Your task to perform on an android device: Show me productivity apps on the Play Store Image 0: 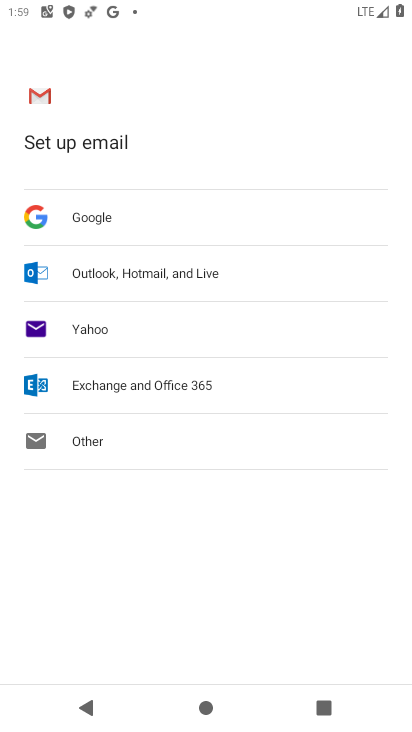
Step 0: press home button
Your task to perform on an android device: Show me productivity apps on the Play Store Image 1: 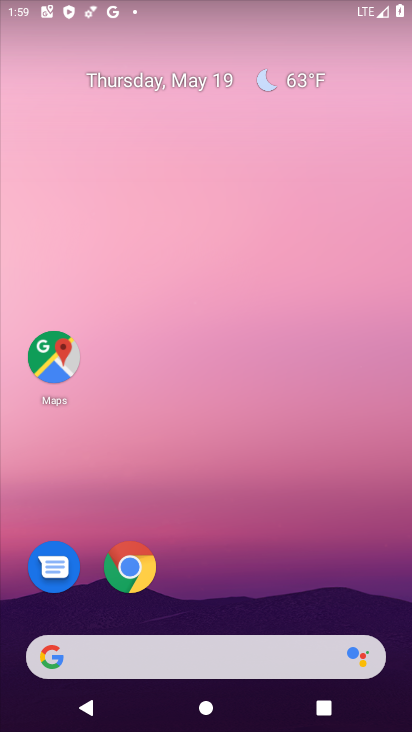
Step 1: drag from (322, 525) to (302, 18)
Your task to perform on an android device: Show me productivity apps on the Play Store Image 2: 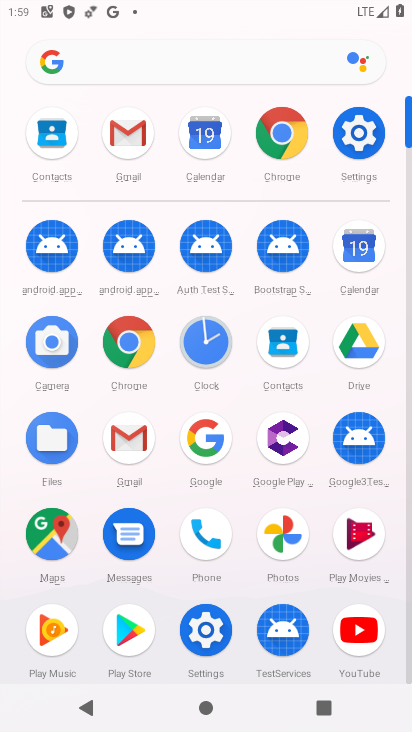
Step 2: click (133, 622)
Your task to perform on an android device: Show me productivity apps on the Play Store Image 3: 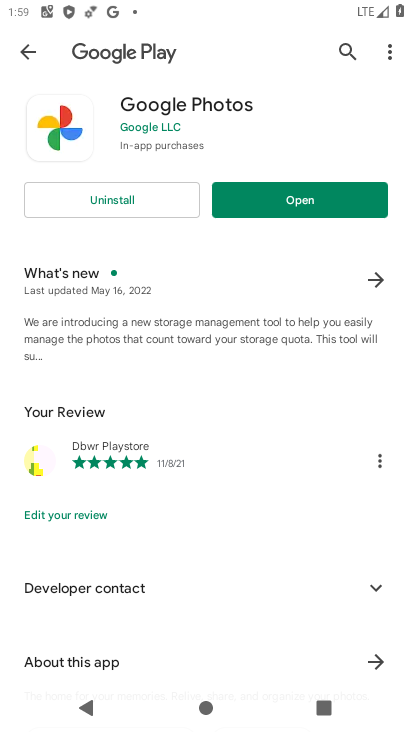
Step 3: click (271, 201)
Your task to perform on an android device: Show me productivity apps on the Play Store Image 4: 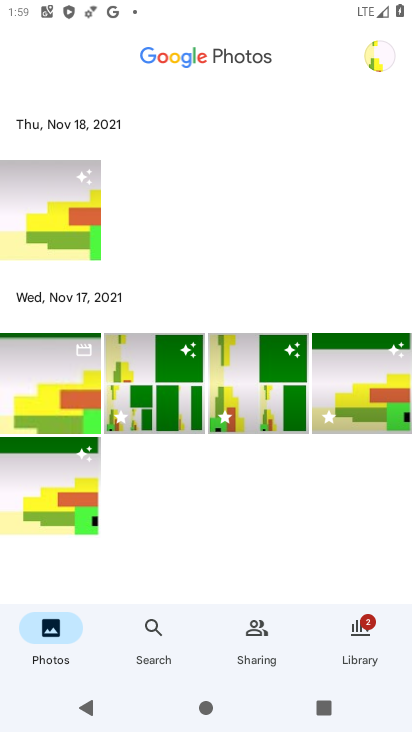
Step 4: press home button
Your task to perform on an android device: Show me productivity apps on the Play Store Image 5: 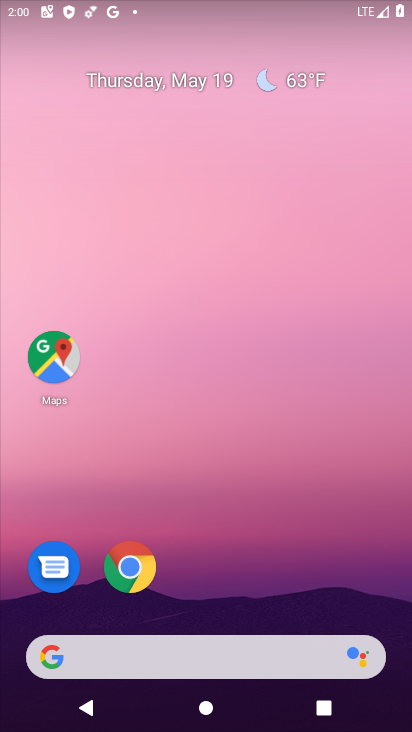
Step 5: drag from (274, 514) to (196, 65)
Your task to perform on an android device: Show me productivity apps on the Play Store Image 6: 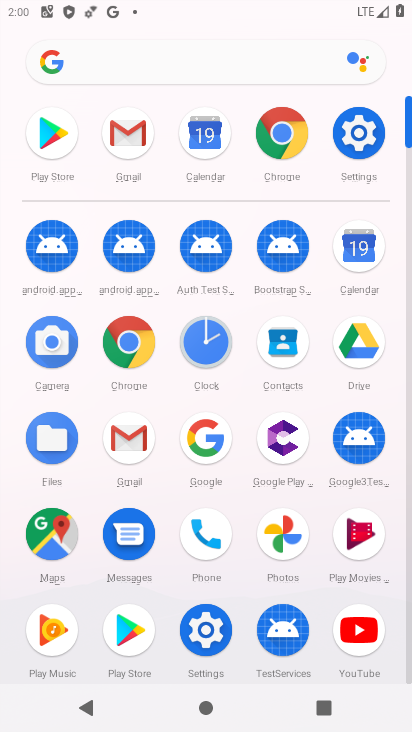
Step 6: click (130, 617)
Your task to perform on an android device: Show me productivity apps on the Play Store Image 7: 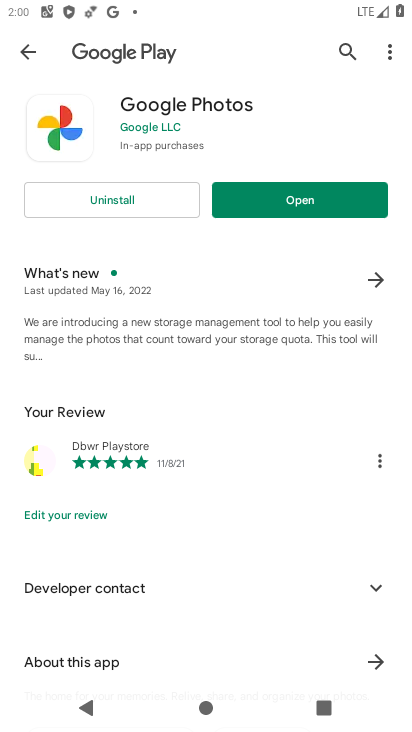
Step 7: click (309, 194)
Your task to perform on an android device: Show me productivity apps on the Play Store Image 8: 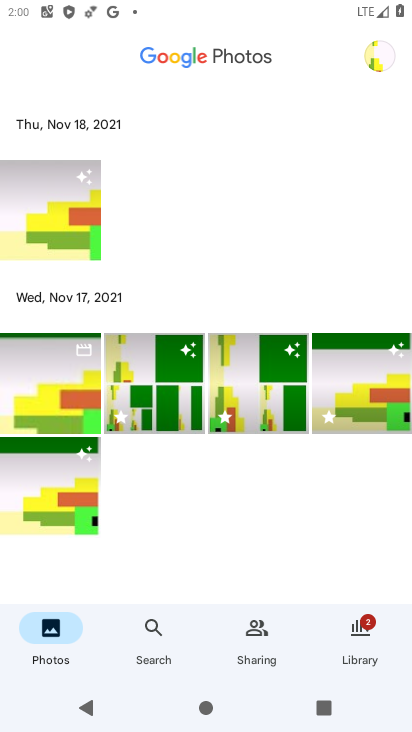
Step 8: click (107, 718)
Your task to perform on an android device: Show me productivity apps on the Play Store Image 9: 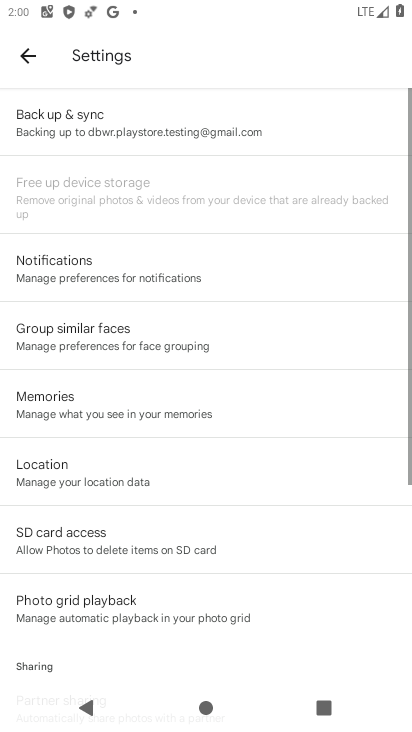
Step 9: click (101, 711)
Your task to perform on an android device: Show me productivity apps on the Play Store Image 10: 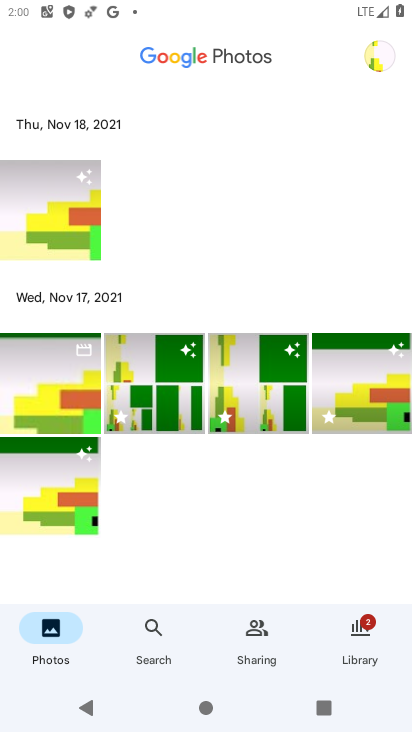
Step 10: press home button
Your task to perform on an android device: Show me productivity apps on the Play Store Image 11: 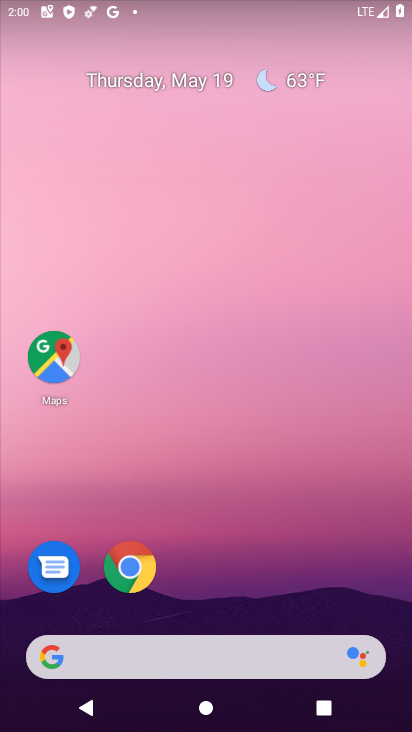
Step 11: drag from (214, 557) to (280, 126)
Your task to perform on an android device: Show me productivity apps on the Play Store Image 12: 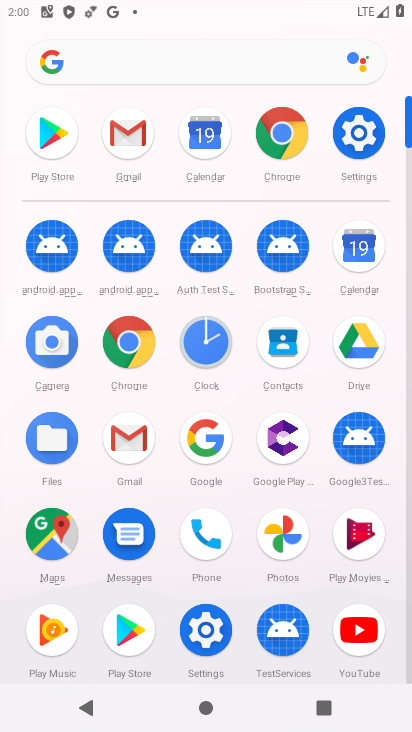
Step 12: click (119, 632)
Your task to perform on an android device: Show me productivity apps on the Play Store Image 13: 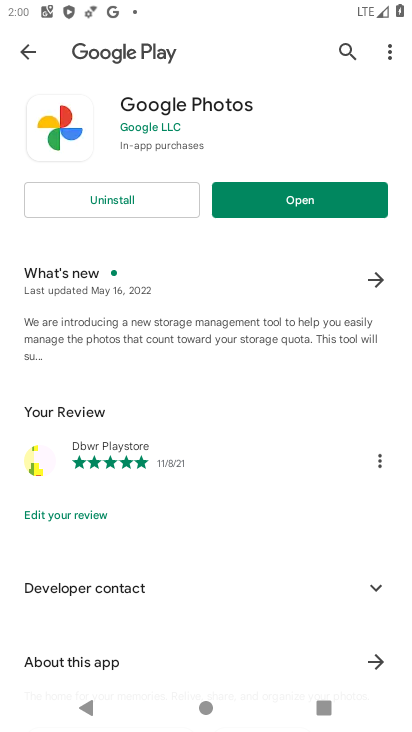
Step 13: click (35, 47)
Your task to perform on an android device: Show me productivity apps on the Play Store Image 14: 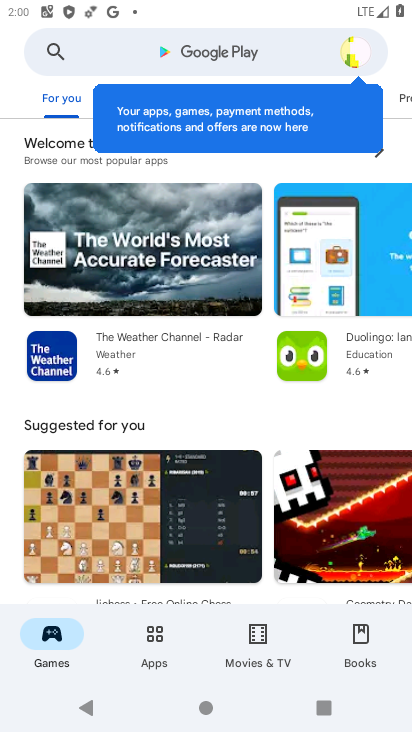
Step 14: click (137, 63)
Your task to perform on an android device: Show me productivity apps on the Play Store Image 15: 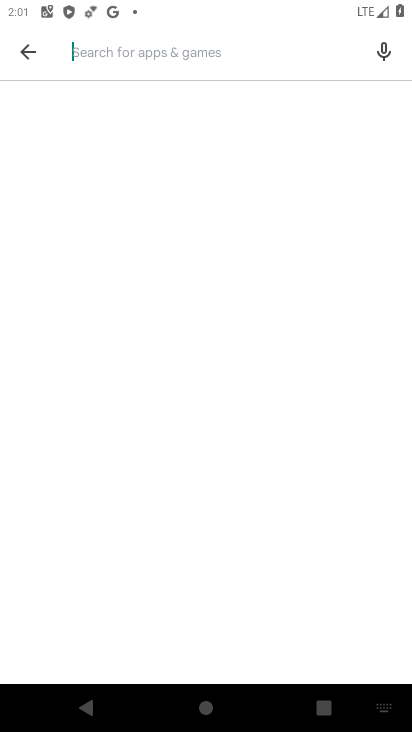
Step 15: type "productivity apps"
Your task to perform on an android device: Show me productivity apps on the Play Store Image 16: 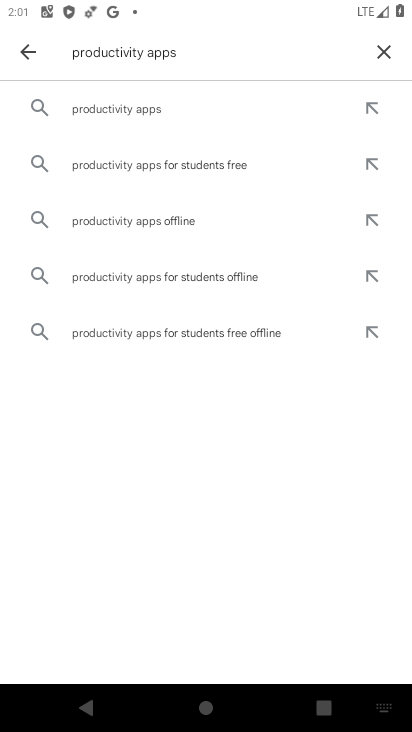
Step 16: click (84, 105)
Your task to perform on an android device: Show me productivity apps on the Play Store Image 17: 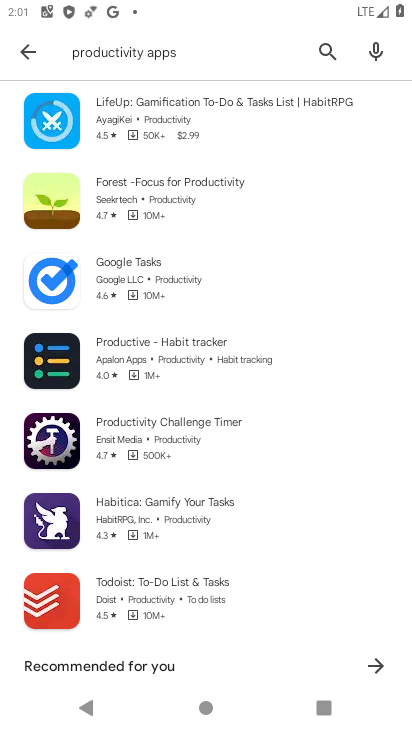
Step 17: task complete